Your task to perform on an android device: Open Google Chrome and click the shortcut for Amazon.com Image 0: 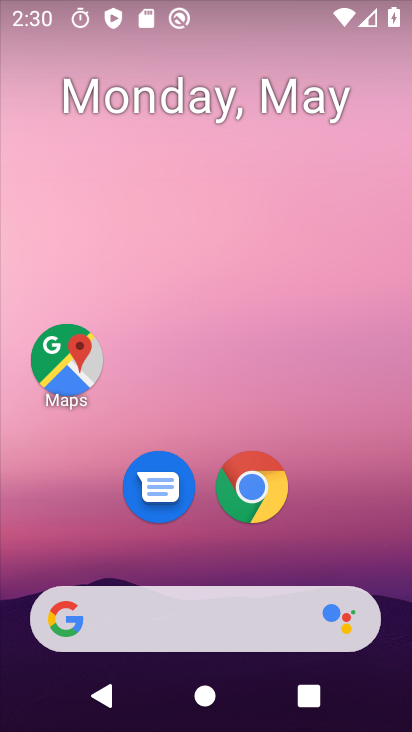
Step 0: click (256, 491)
Your task to perform on an android device: Open Google Chrome and click the shortcut for Amazon.com Image 1: 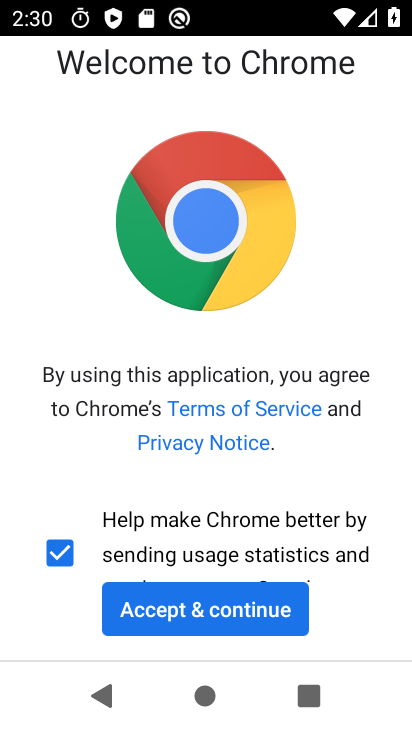
Step 1: click (233, 603)
Your task to perform on an android device: Open Google Chrome and click the shortcut for Amazon.com Image 2: 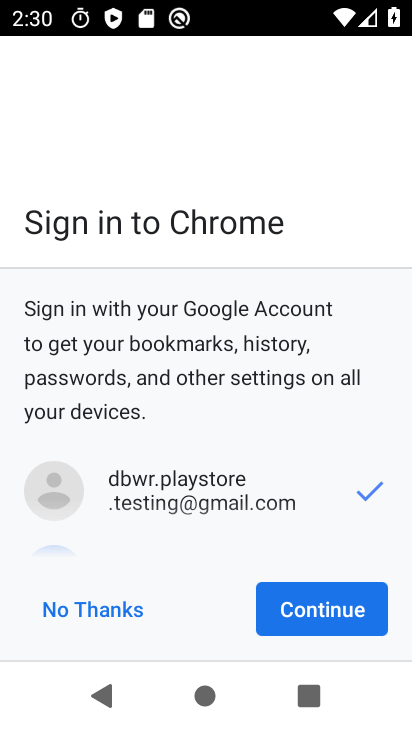
Step 2: click (336, 608)
Your task to perform on an android device: Open Google Chrome and click the shortcut for Amazon.com Image 3: 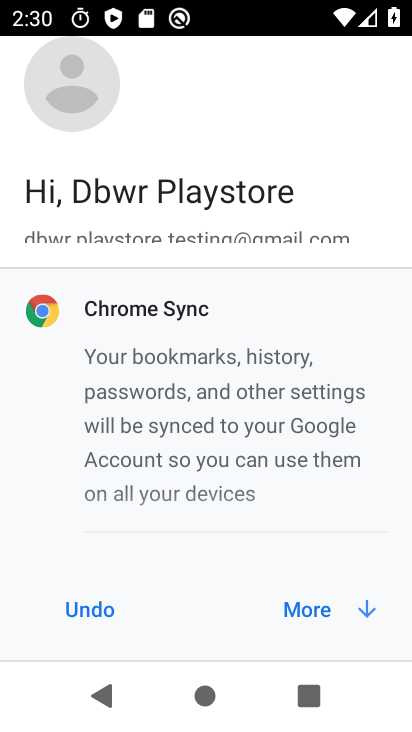
Step 3: click (336, 609)
Your task to perform on an android device: Open Google Chrome and click the shortcut for Amazon.com Image 4: 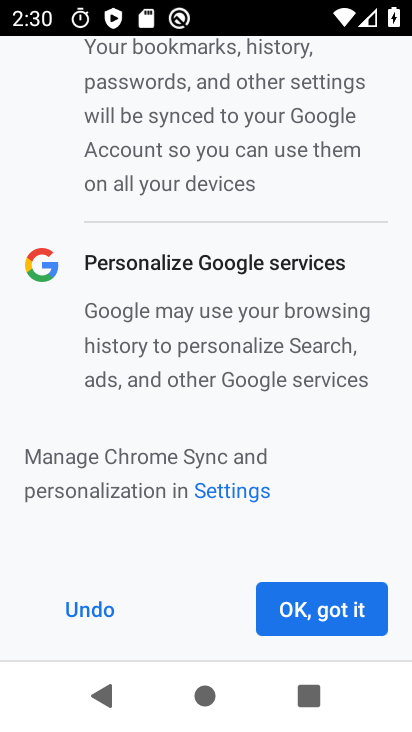
Step 4: click (324, 608)
Your task to perform on an android device: Open Google Chrome and click the shortcut for Amazon.com Image 5: 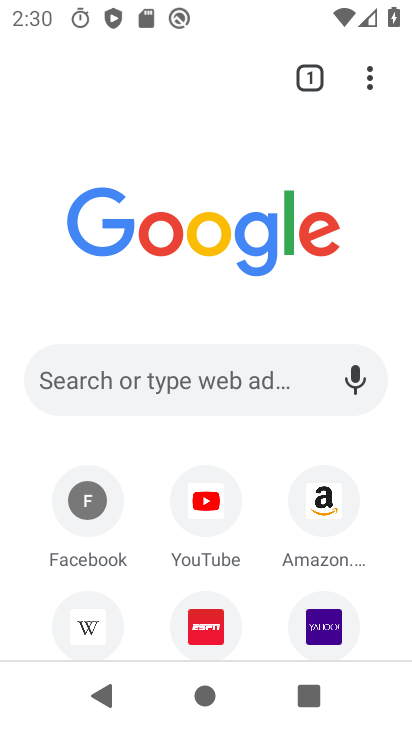
Step 5: click (333, 530)
Your task to perform on an android device: Open Google Chrome and click the shortcut for Amazon.com Image 6: 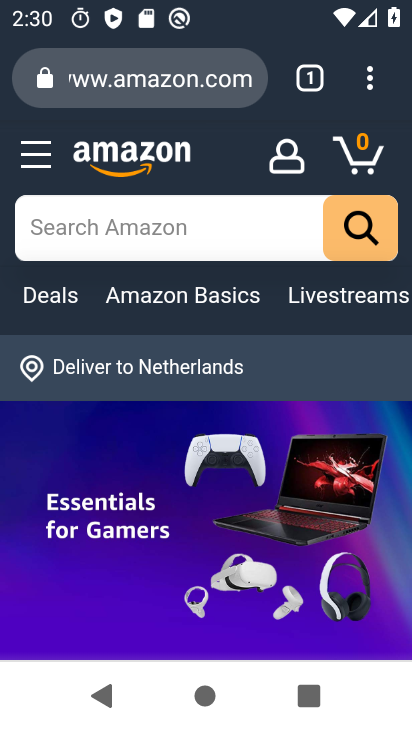
Step 6: task complete